Your task to perform on an android device: Set the phone to "Do not disturb". Image 0: 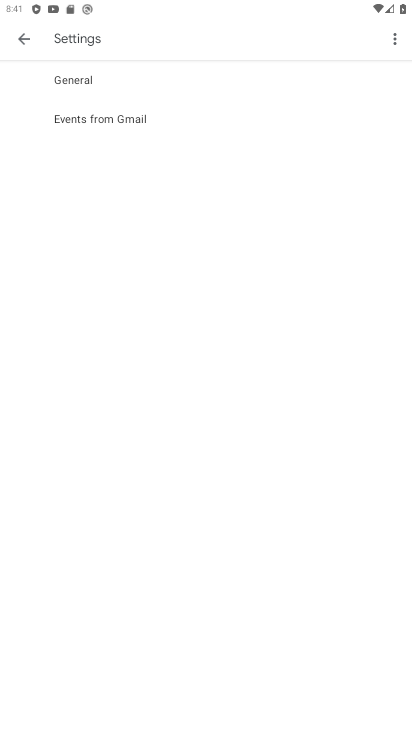
Step 0: press back button
Your task to perform on an android device: Set the phone to "Do not disturb". Image 1: 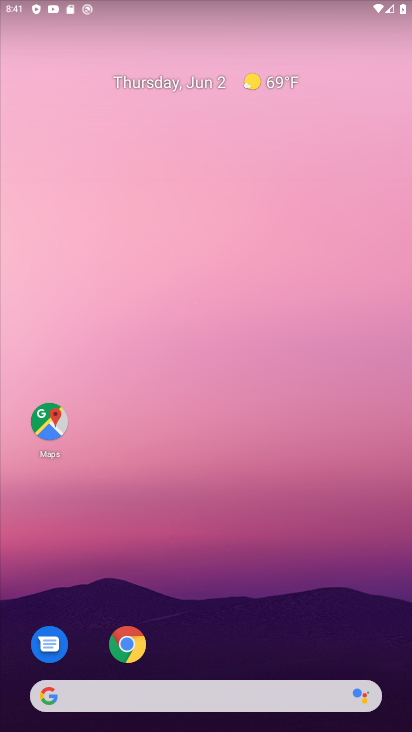
Step 1: drag from (268, 603) to (255, 9)
Your task to perform on an android device: Set the phone to "Do not disturb". Image 2: 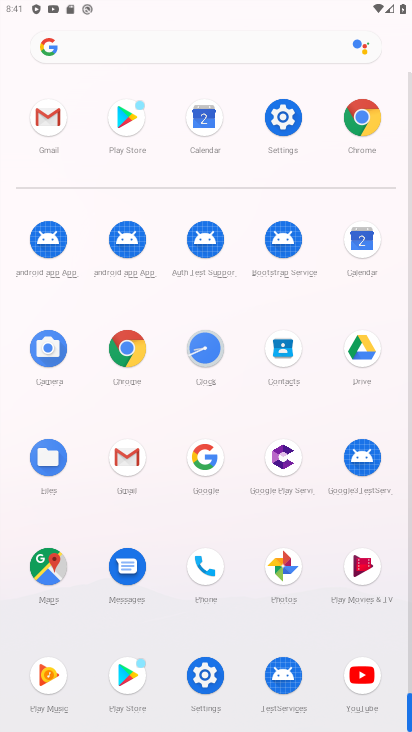
Step 2: drag from (10, 621) to (9, 286)
Your task to perform on an android device: Set the phone to "Do not disturb". Image 3: 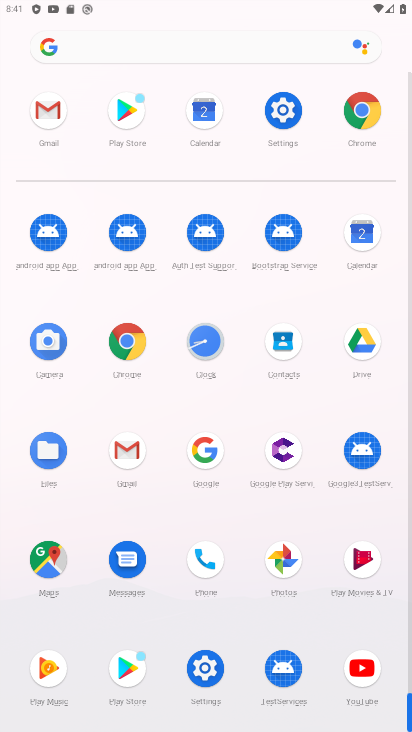
Step 3: click (203, 666)
Your task to perform on an android device: Set the phone to "Do not disturb". Image 4: 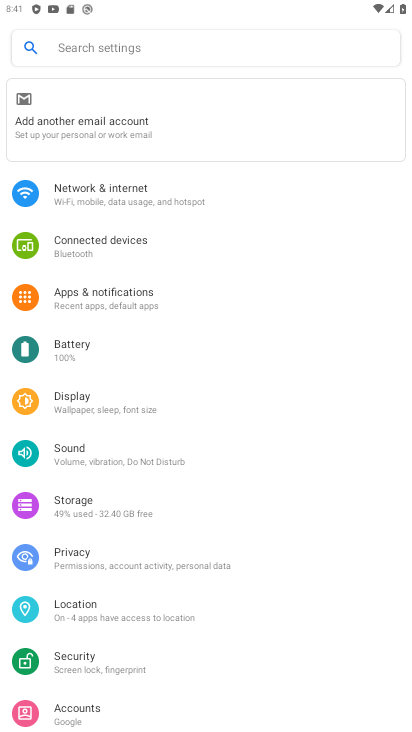
Step 4: drag from (245, 576) to (284, 219)
Your task to perform on an android device: Set the phone to "Do not disturb". Image 5: 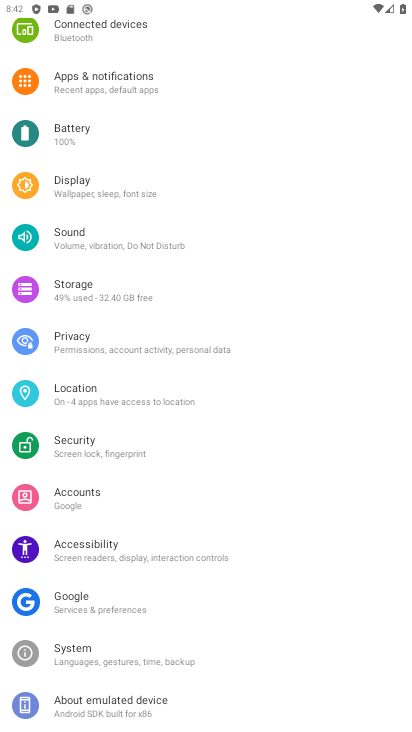
Step 5: click (166, 228)
Your task to perform on an android device: Set the phone to "Do not disturb". Image 6: 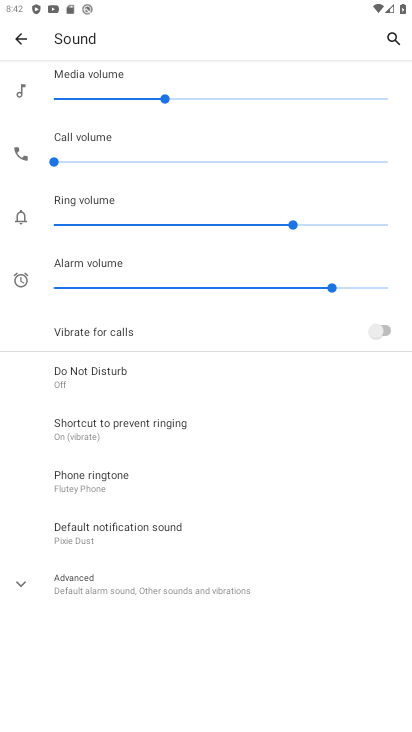
Step 6: click (54, 572)
Your task to perform on an android device: Set the phone to "Do not disturb". Image 7: 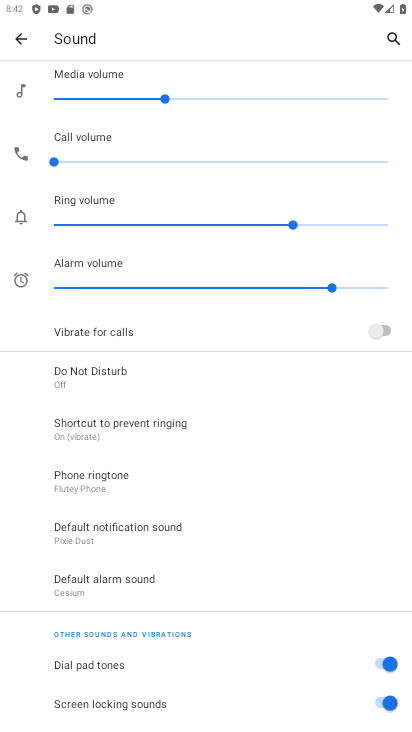
Step 7: drag from (231, 618) to (281, 217)
Your task to perform on an android device: Set the phone to "Do not disturb". Image 8: 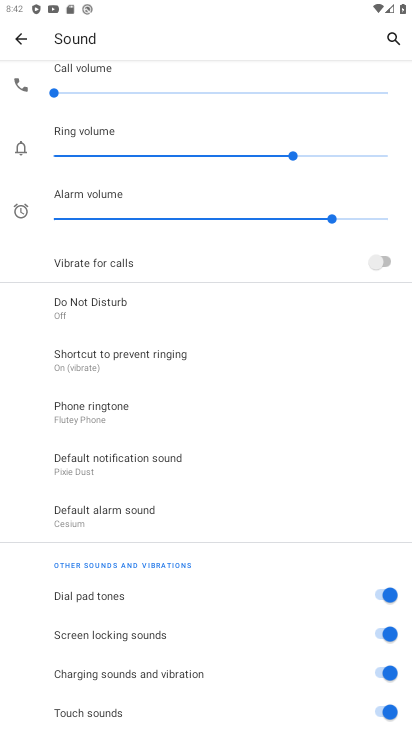
Step 8: click (125, 339)
Your task to perform on an android device: Set the phone to "Do not disturb". Image 9: 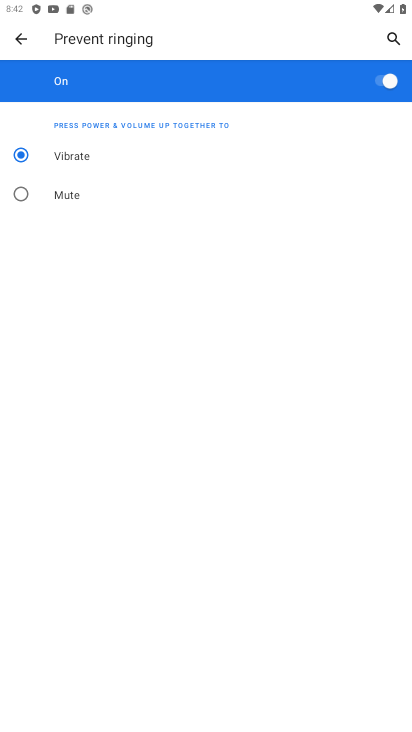
Step 9: click (24, 36)
Your task to perform on an android device: Set the phone to "Do not disturb". Image 10: 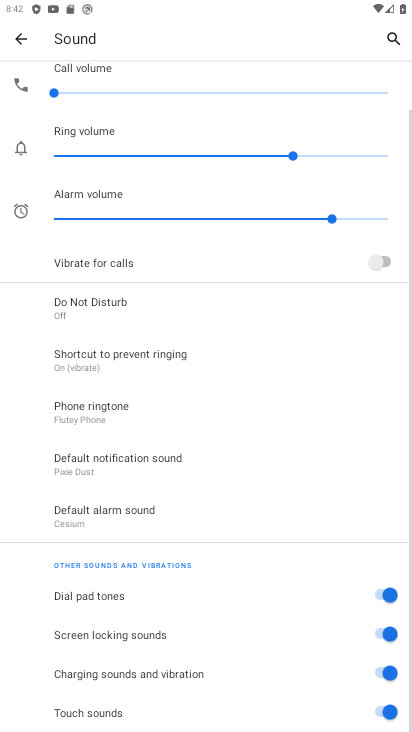
Step 10: click (116, 296)
Your task to perform on an android device: Set the phone to "Do not disturb". Image 11: 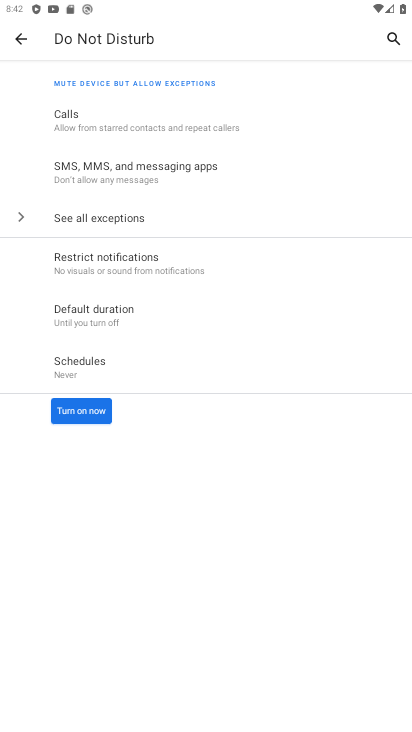
Step 11: click (73, 401)
Your task to perform on an android device: Set the phone to "Do not disturb". Image 12: 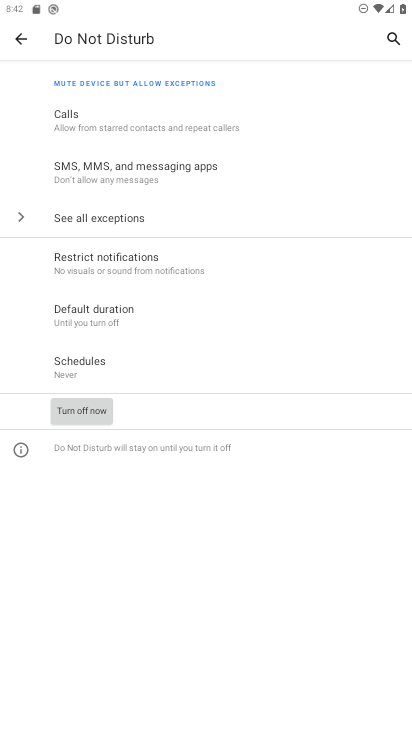
Step 12: task complete